Your task to perform on an android device: What's on my calendar tomorrow? Image 0: 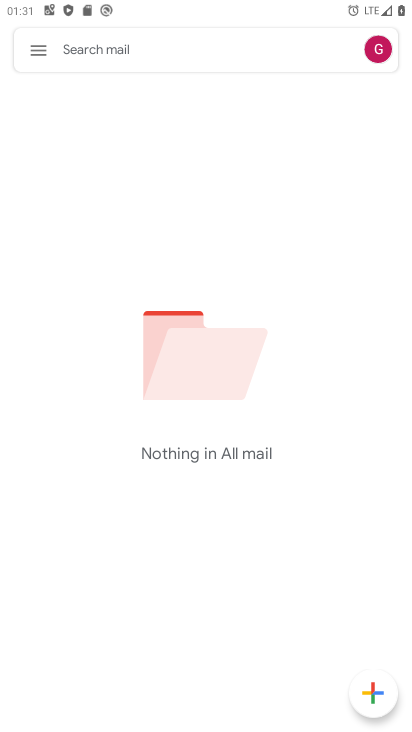
Step 0: press home button
Your task to perform on an android device: What's on my calendar tomorrow? Image 1: 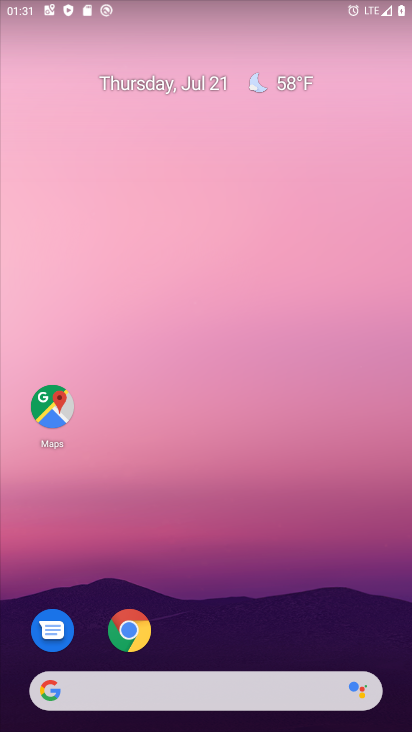
Step 1: click (159, 79)
Your task to perform on an android device: What's on my calendar tomorrow? Image 2: 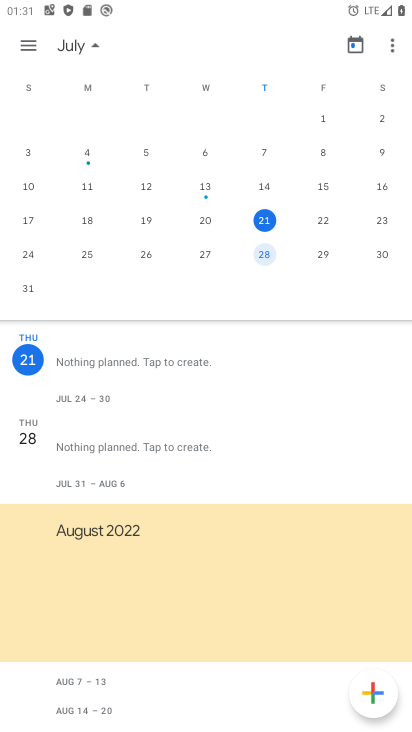
Step 2: click (323, 214)
Your task to perform on an android device: What's on my calendar tomorrow? Image 3: 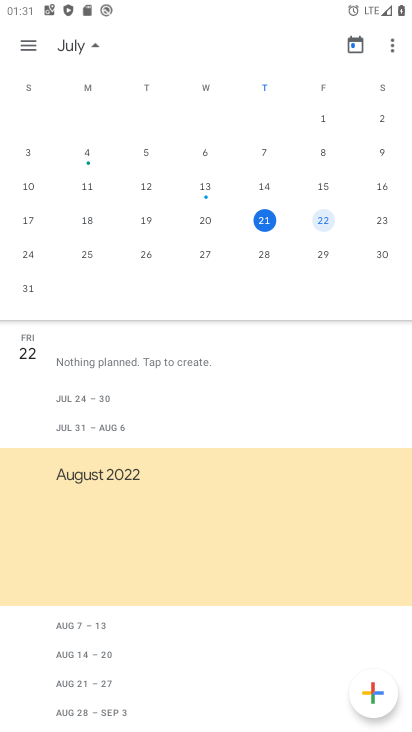
Step 3: task complete